Your task to perform on an android device: set the timer Image 0: 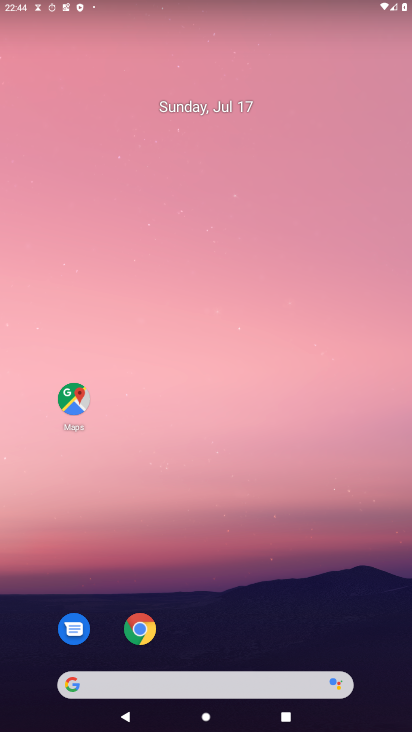
Step 0: drag from (237, 705) to (220, 67)
Your task to perform on an android device: set the timer Image 1: 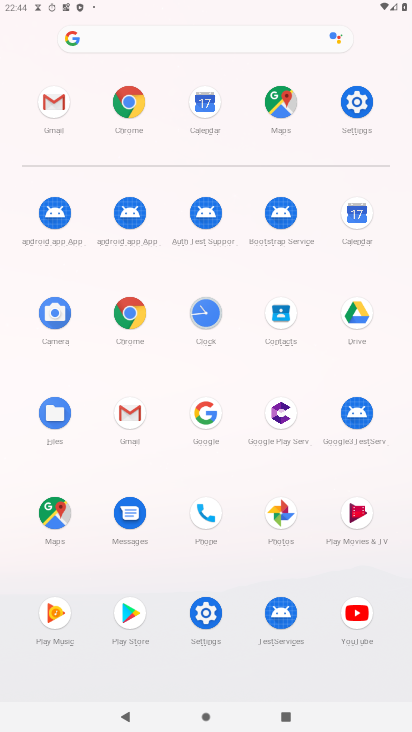
Step 1: click (351, 96)
Your task to perform on an android device: set the timer Image 2: 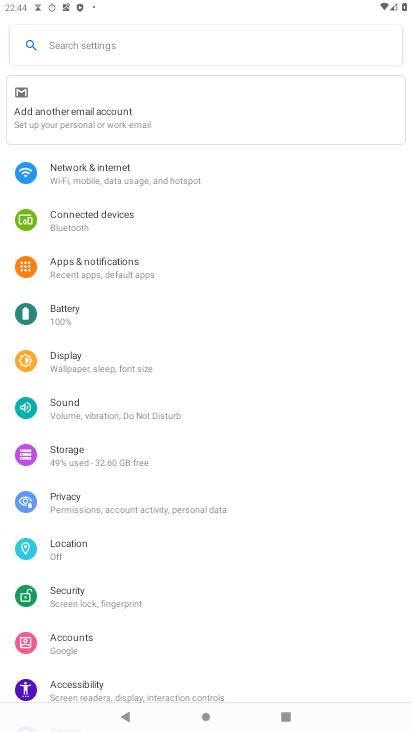
Step 2: press home button
Your task to perform on an android device: set the timer Image 3: 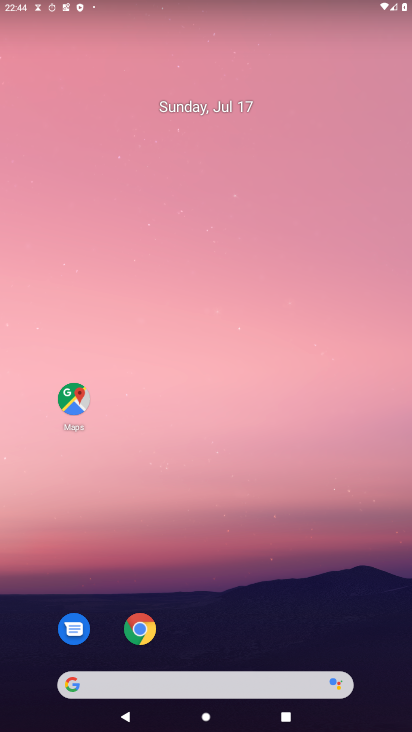
Step 3: drag from (237, 627) to (234, 69)
Your task to perform on an android device: set the timer Image 4: 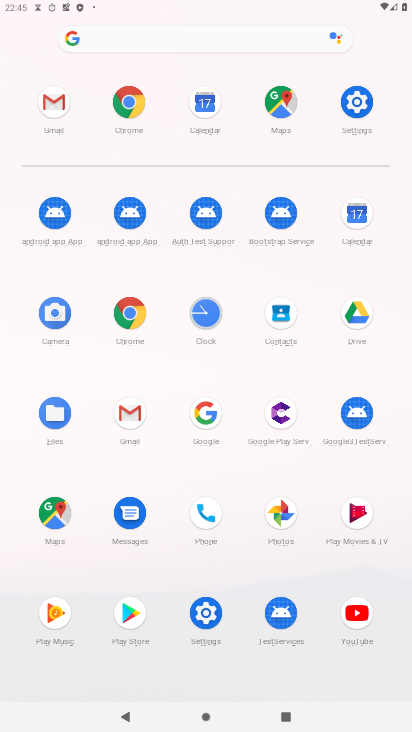
Step 4: click (210, 315)
Your task to perform on an android device: set the timer Image 5: 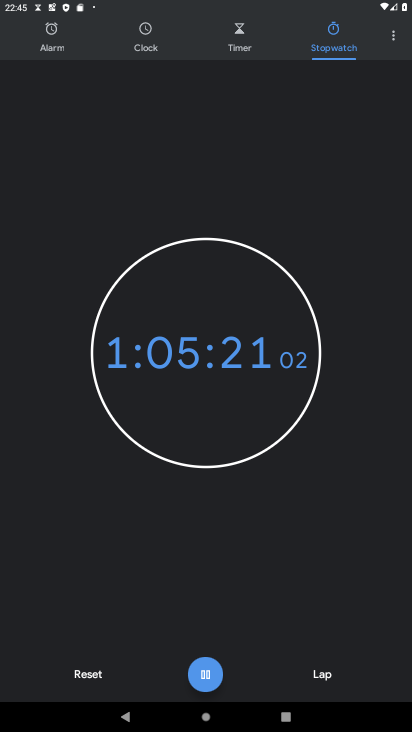
Step 5: click (237, 41)
Your task to perform on an android device: set the timer Image 6: 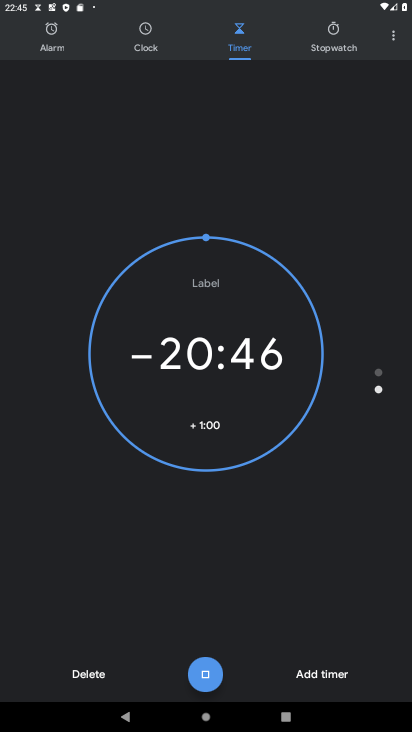
Step 6: click (208, 672)
Your task to perform on an android device: set the timer Image 7: 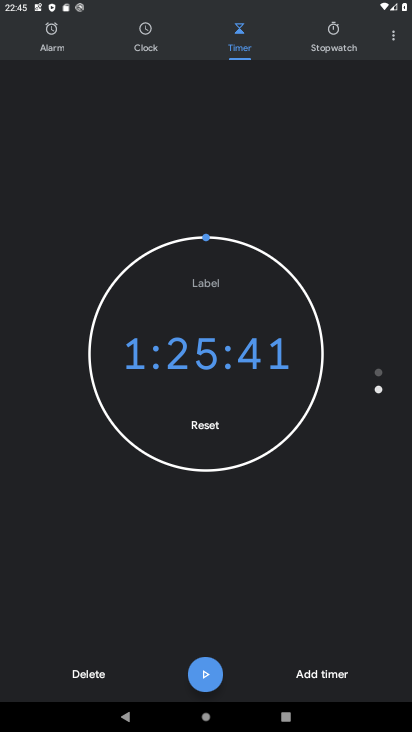
Step 7: click (331, 667)
Your task to perform on an android device: set the timer Image 8: 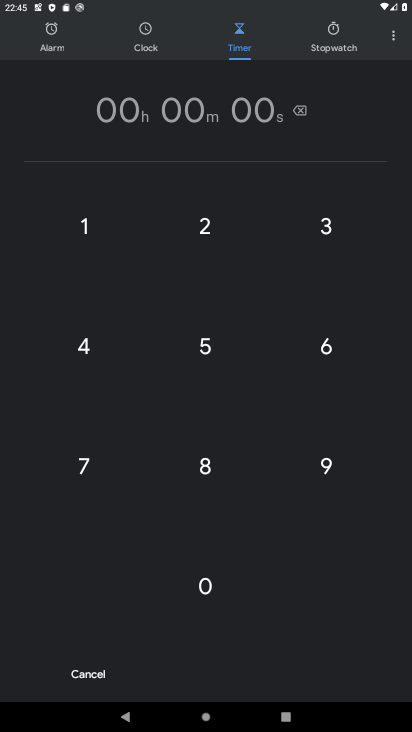
Step 8: click (208, 587)
Your task to perform on an android device: set the timer Image 9: 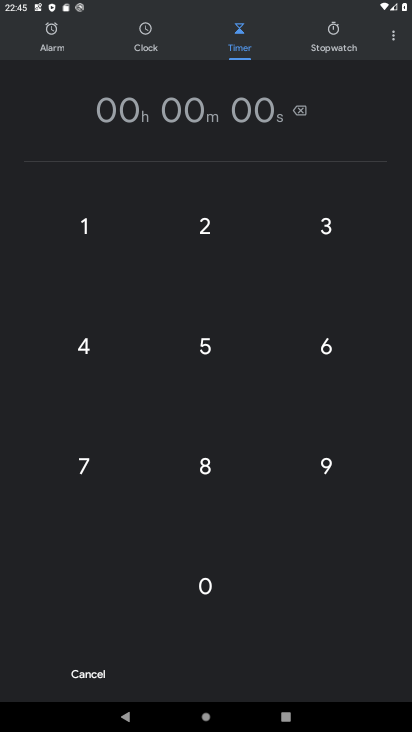
Step 9: click (200, 350)
Your task to perform on an android device: set the timer Image 10: 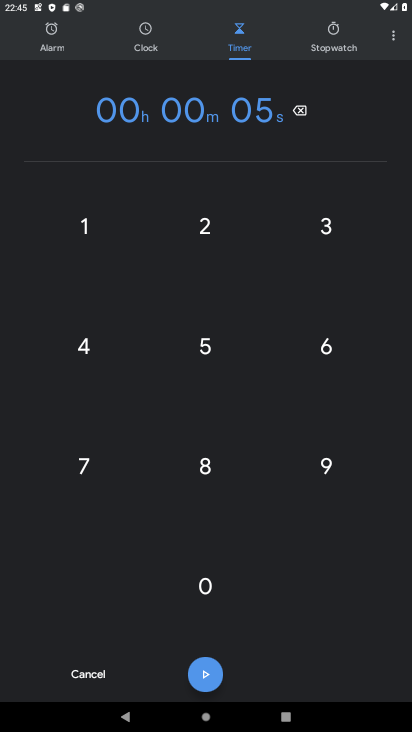
Step 10: click (206, 214)
Your task to perform on an android device: set the timer Image 11: 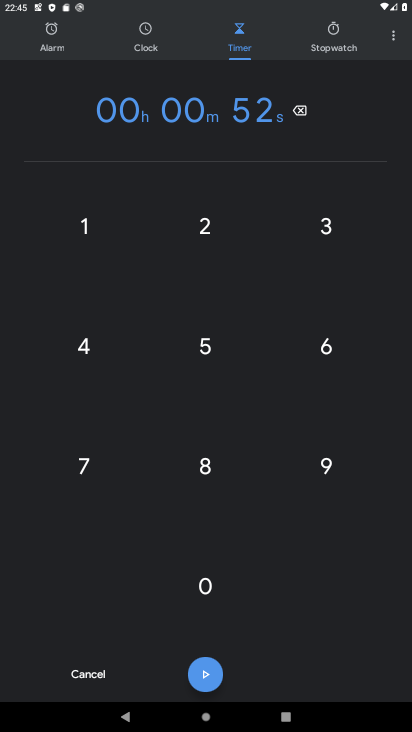
Step 11: click (87, 219)
Your task to perform on an android device: set the timer Image 12: 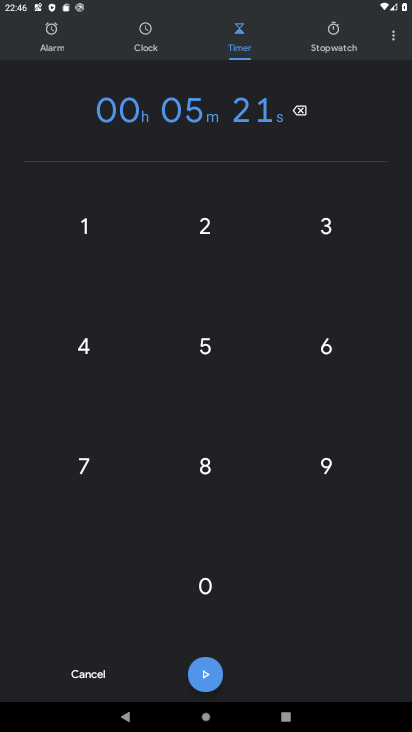
Step 12: task complete